Your task to perform on an android device: Show me productivity apps on the Play Store Image 0: 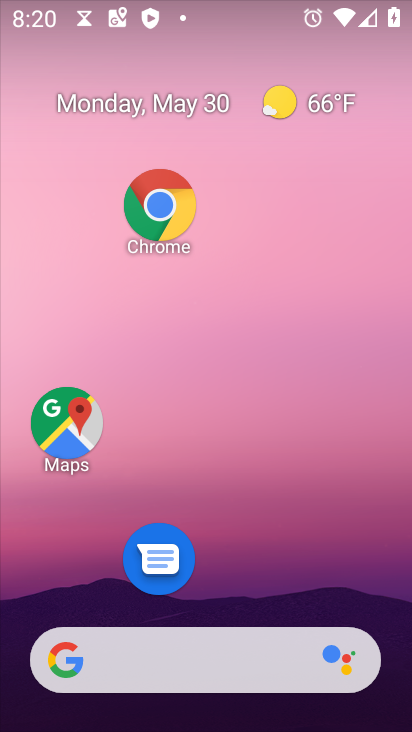
Step 0: drag from (313, 689) to (236, 191)
Your task to perform on an android device: Show me productivity apps on the Play Store Image 1: 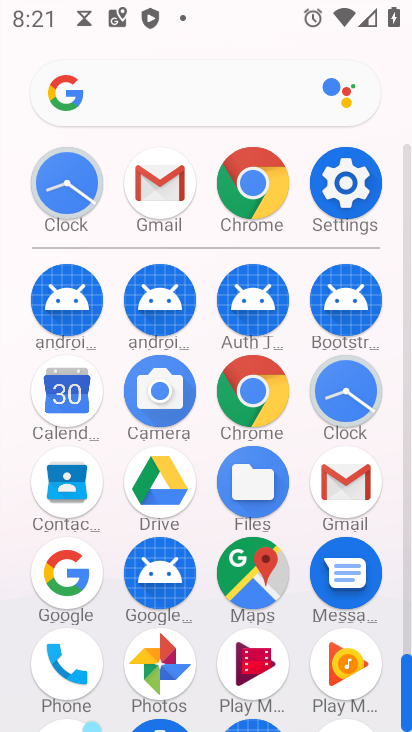
Step 1: drag from (195, 602) to (210, 214)
Your task to perform on an android device: Show me productivity apps on the Play Store Image 2: 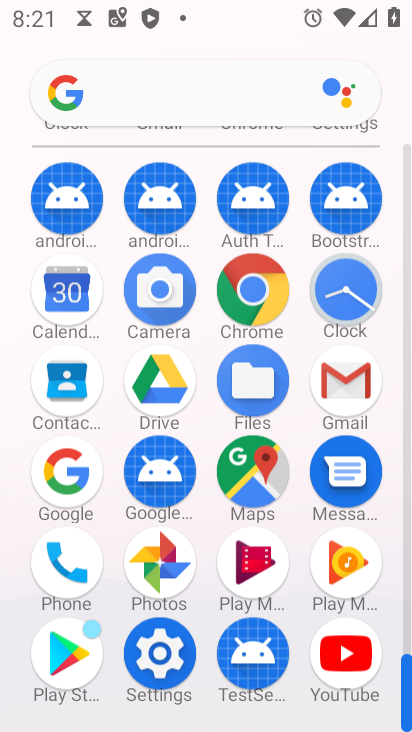
Step 2: drag from (184, 483) to (183, 292)
Your task to perform on an android device: Show me productivity apps on the Play Store Image 3: 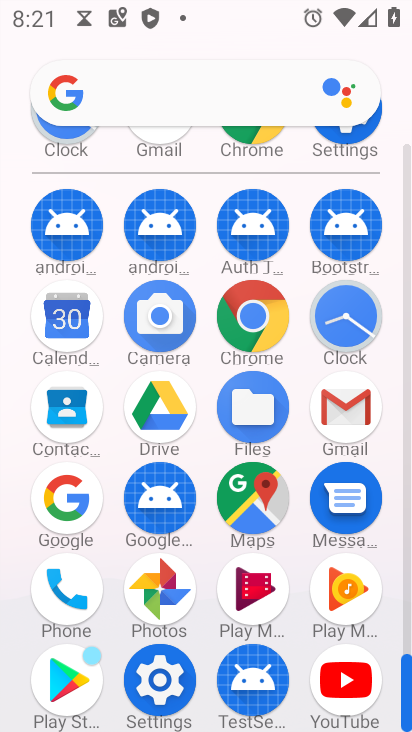
Step 3: click (65, 668)
Your task to perform on an android device: Show me productivity apps on the Play Store Image 4: 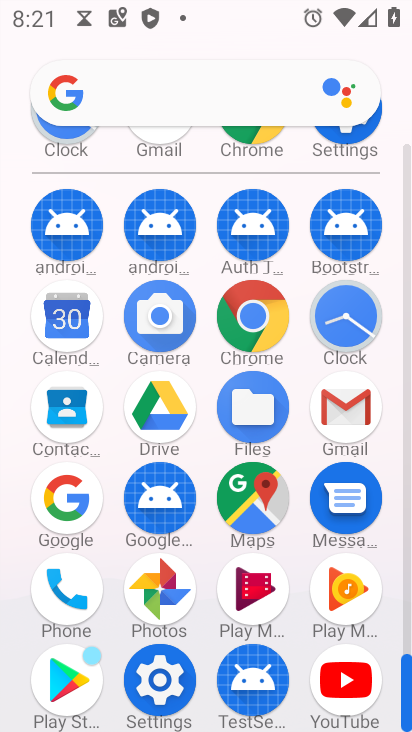
Step 4: click (69, 678)
Your task to perform on an android device: Show me productivity apps on the Play Store Image 5: 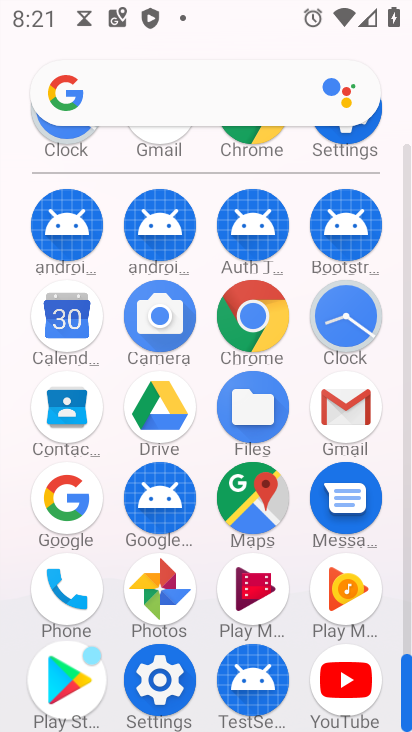
Step 5: click (72, 678)
Your task to perform on an android device: Show me productivity apps on the Play Store Image 6: 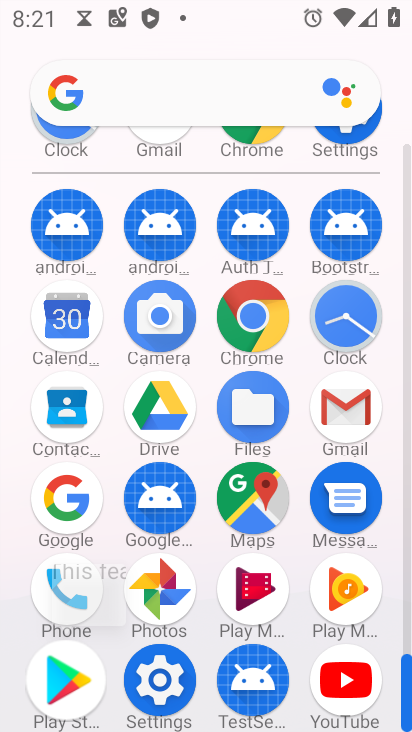
Step 6: click (72, 678)
Your task to perform on an android device: Show me productivity apps on the Play Store Image 7: 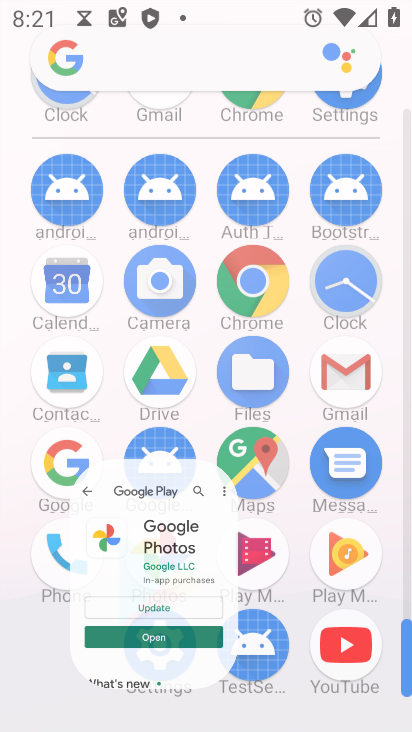
Step 7: click (73, 679)
Your task to perform on an android device: Show me productivity apps on the Play Store Image 8: 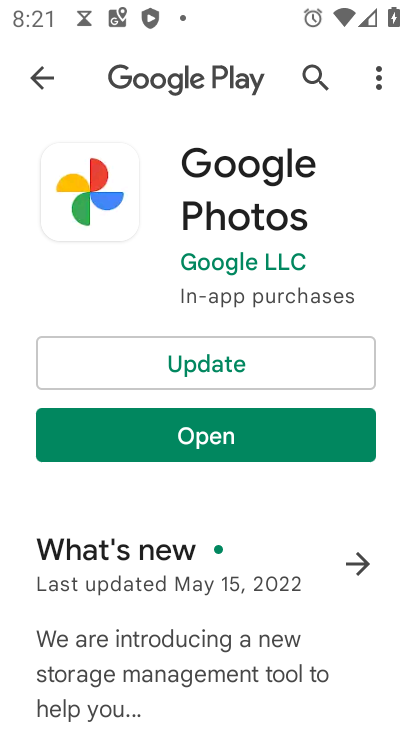
Step 8: click (73, 677)
Your task to perform on an android device: Show me productivity apps on the Play Store Image 9: 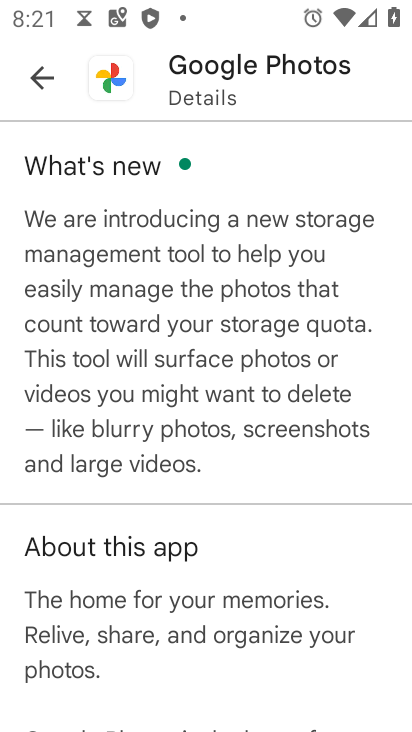
Step 9: click (35, 69)
Your task to perform on an android device: Show me productivity apps on the Play Store Image 10: 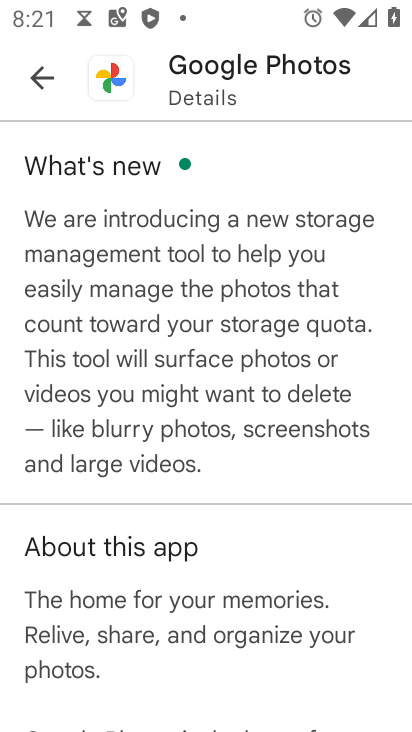
Step 10: click (35, 69)
Your task to perform on an android device: Show me productivity apps on the Play Store Image 11: 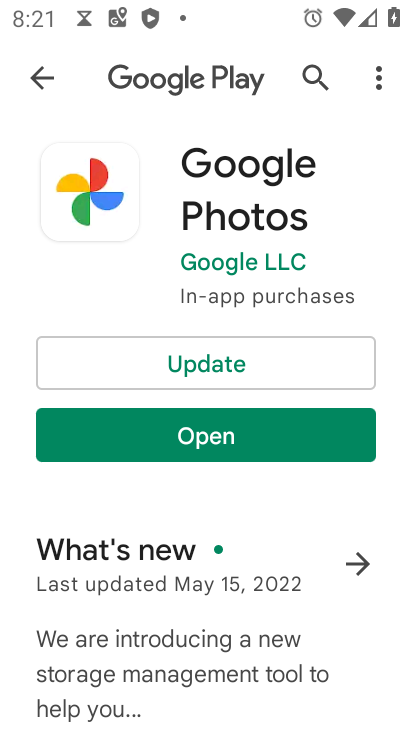
Step 11: click (39, 73)
Your task to perform on an android device: Show me productivity apps on the Play Store Image 12: 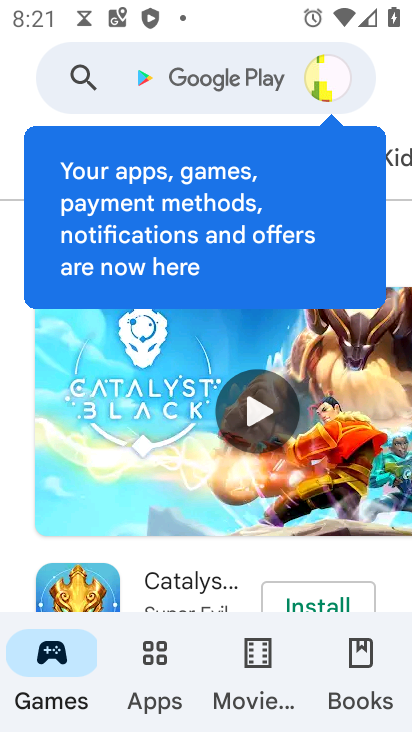
Step 12: press back button
Your task to perform on an android device: Show me productivity apps on the Play Store Image 13: 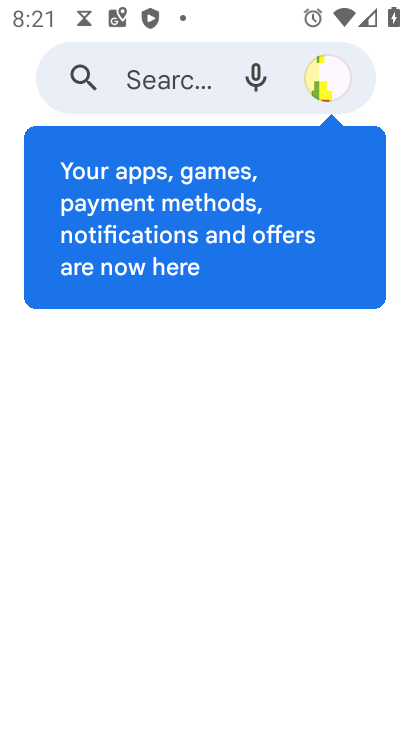
Step 13: press back button
Your task to perform on an android device: Show me productivity apps on the Play Store Image 14: 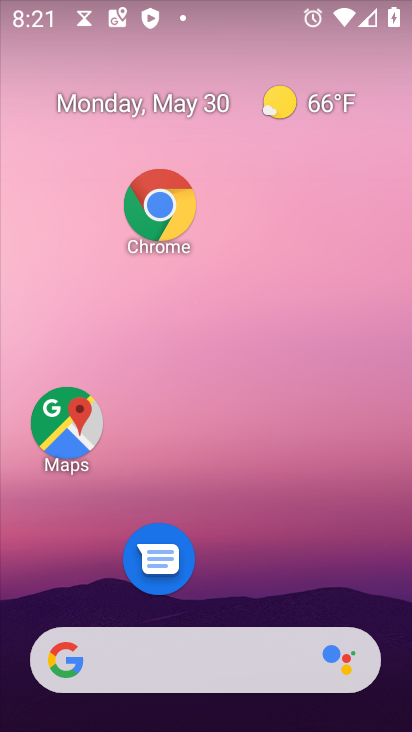
Step 14: drag from (283, 622) to (276, 195)
Your task to perform on an android device: Show me productivity apps on the Play Store Image 15: 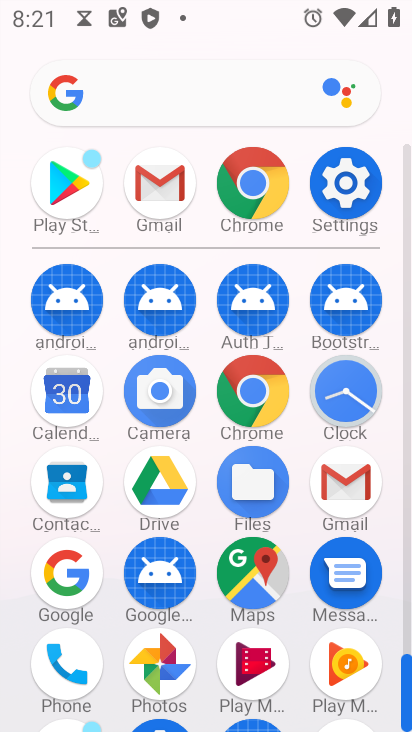
Step 15: drag from (268, 415) to (289, 183)
Your task to perform on an android device: Show me productivity apps on the Play Store Image 16: 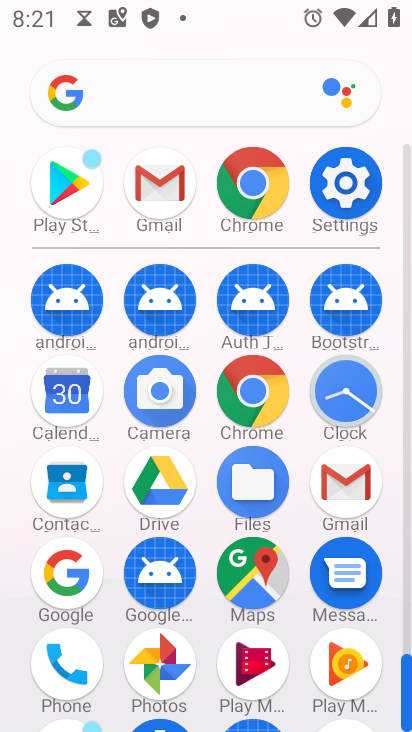
Step 16: drag from (367, 554) to (353, 249)
Your task to perform on an android device: Show me productivity apps on the Play Store Image 17: 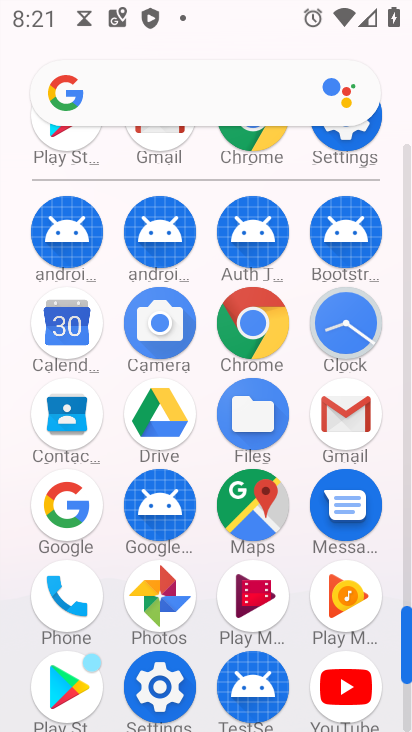
Step 17: click (75, 695)
Your task to perform on an android device: Show me productivity apps on the Play Store Image 18: 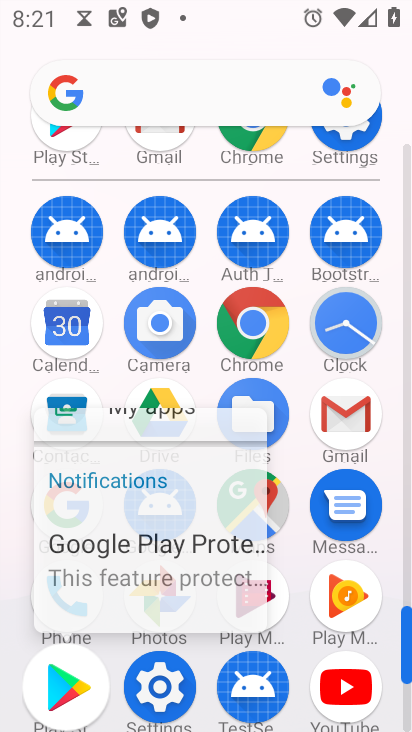
Step 18: click (75, 695)
Your task to perform on an android device: Show me productivity apps on the Play Store Image 19: 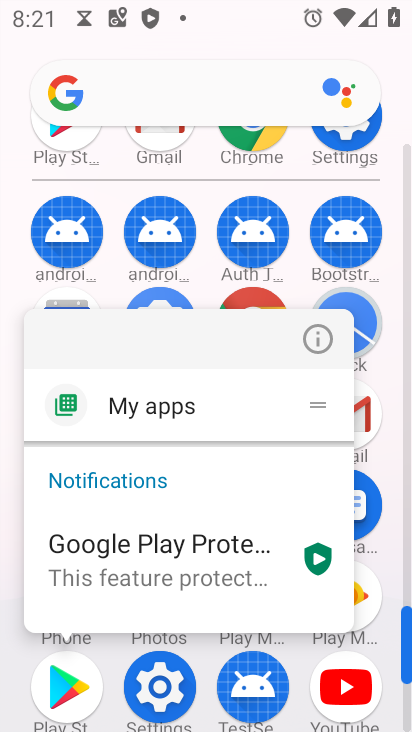
Step 19: click (75, 695)
Your task to perform on an android device: Show me productivity apps on the Play Store Image 20: 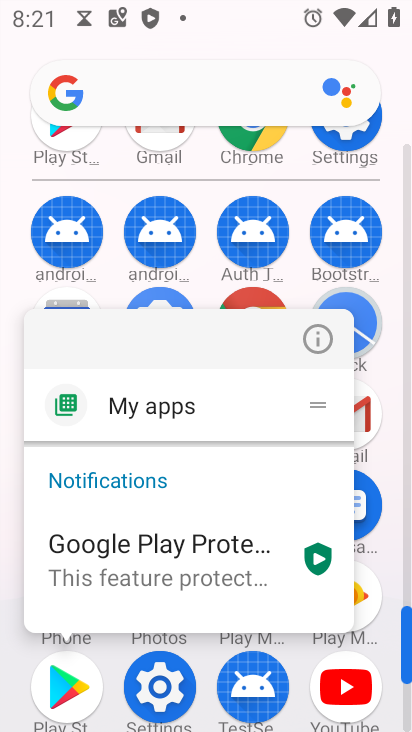
Step 20: click (75, 695)
Your task to perform on an android device: Show me productivity apps on the Play Store Image 21: 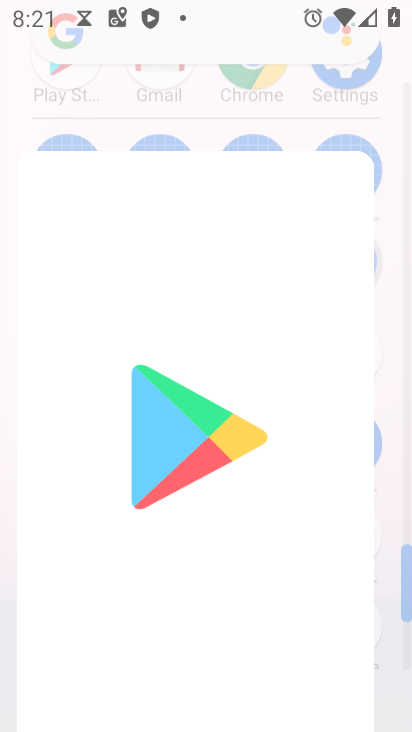
Step 21: click (75, 695)
Your task to perform on an android device: Show me productivity apps on the Play Store Image 22: 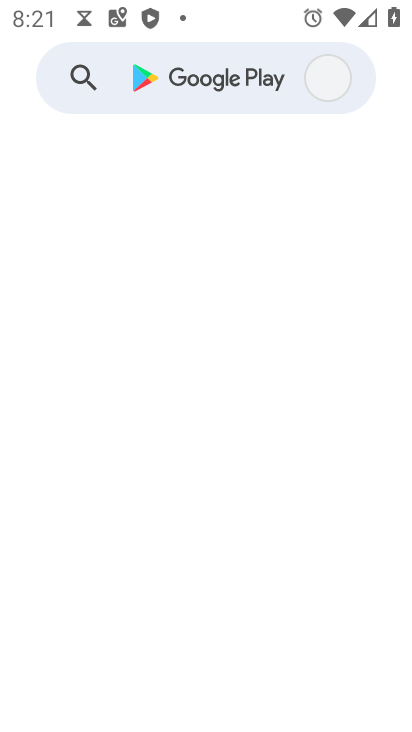
Step 22: click (75, 695)
Your task to perform on an android device: Show me productivity apps on the Play Store Image 23: 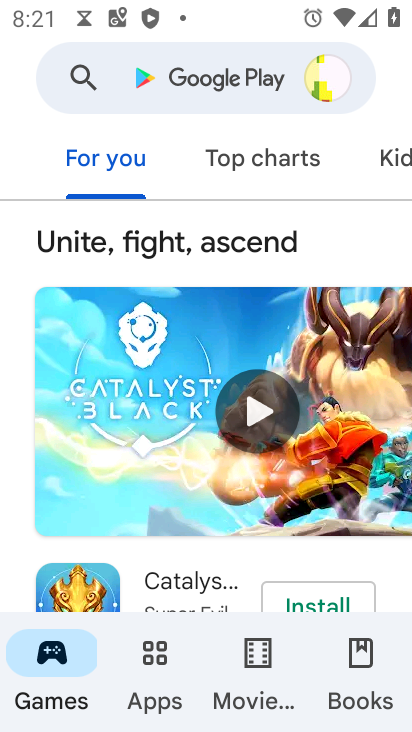
Step 23: click (133, 111)
Your task to perform on an android device: Show me productivity apps on the Play Store Image 24: 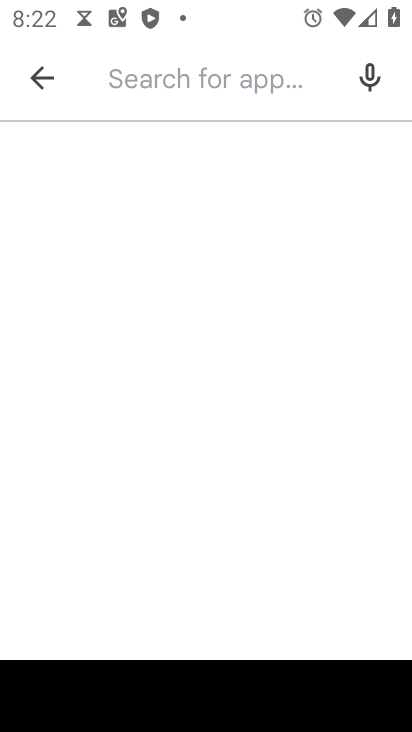
Step 24: type "productivity apps"
Your task to perform on an android device: Show me productivity apps on the Play Store Image 25: 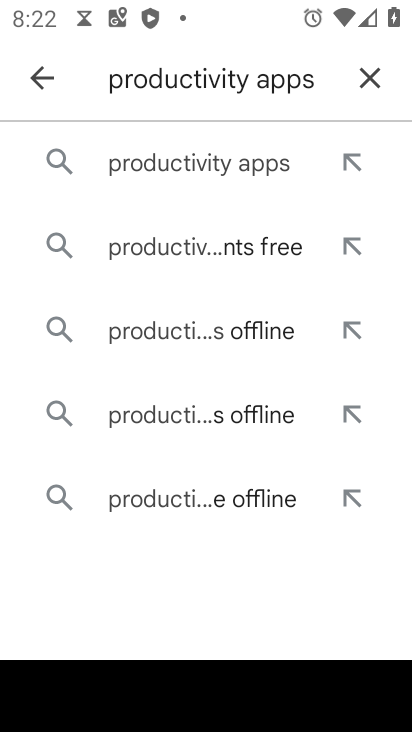
Step 25: click (223, 157)
Your task to perform on an android device: Show me productivity apps on the Play Store Image 26: 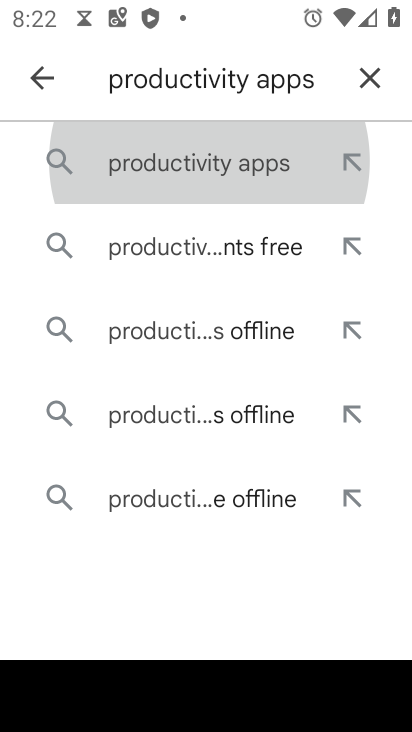
Step 26: click (224, 155)
Your task to perform on an android device: Show me productivity apps on the Play Store Image 27: 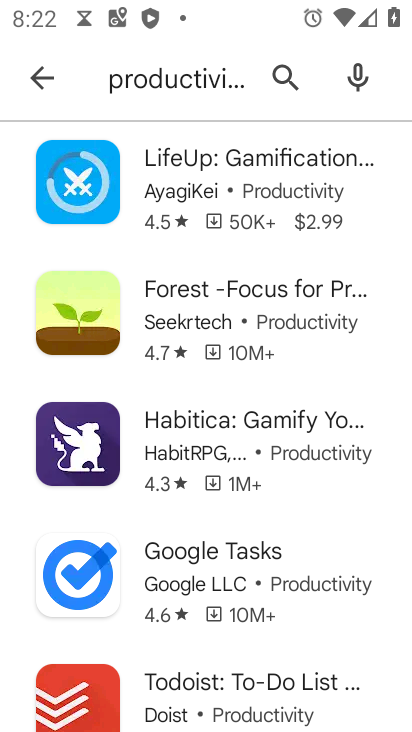
Step 27: task complete